Your task to perform on an android device: turn notification dots off Image 0: 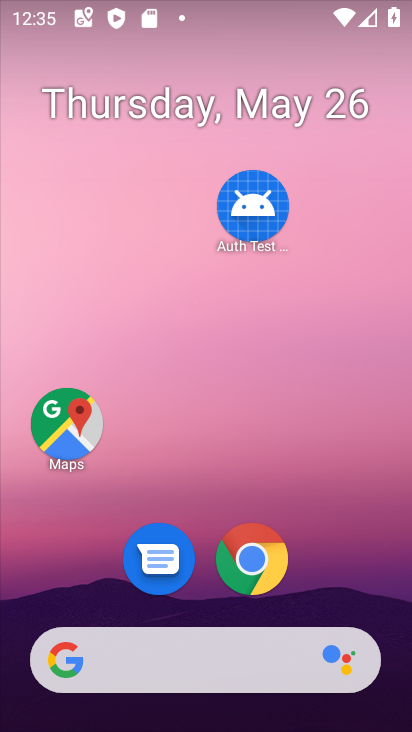
Step 0: drag from (339, 604) to (327, 153)
Your task to perform on an android device: turn notification dots off Image 1: 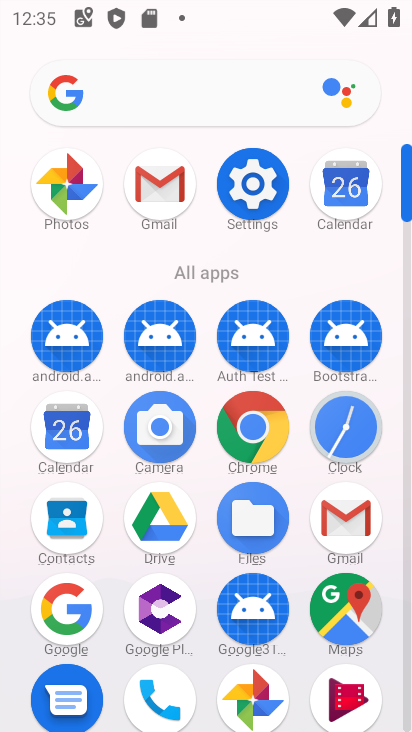
Step 1: click (234, 182)
Your task to perform on an android device: turn notification dots off Image 2: 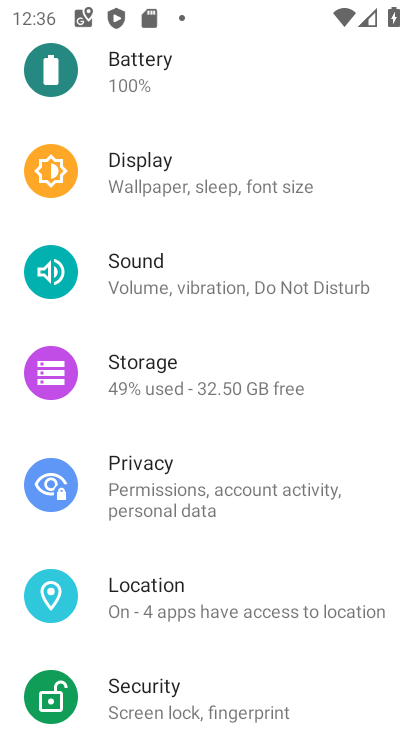
Step 2: drag from (211, 628) to (186, 664)
Your task to perform on an android device: turn notification dots off Image 3: 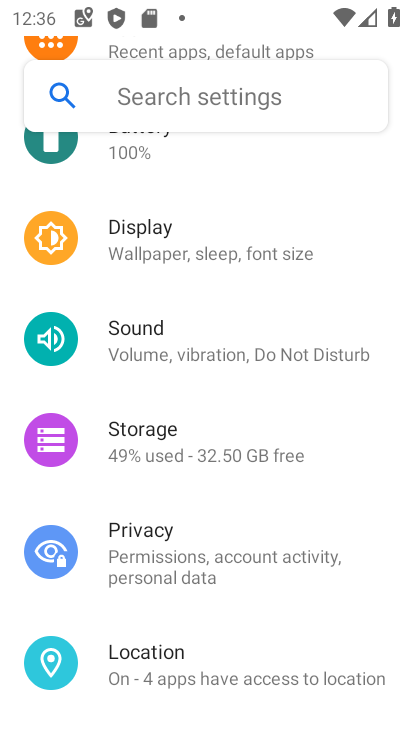
Step 3: drag from (179, 338) to (91, 728)
Your task to perform on an android device: turn notification dots off Image 4: 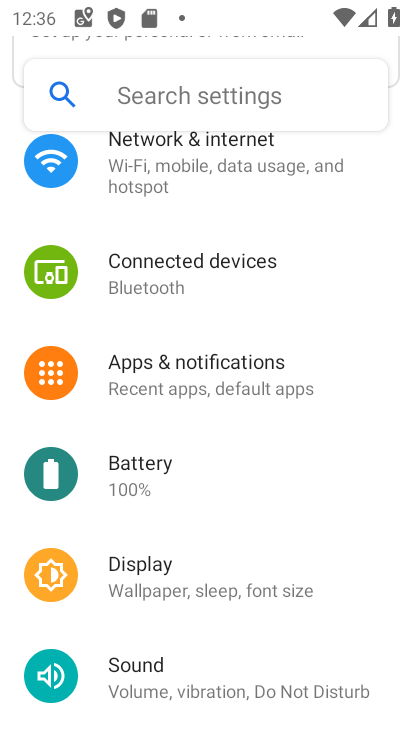
Step 4: click (180, 376)
Your task to perform on an android device: turn notification dots off Image 5: 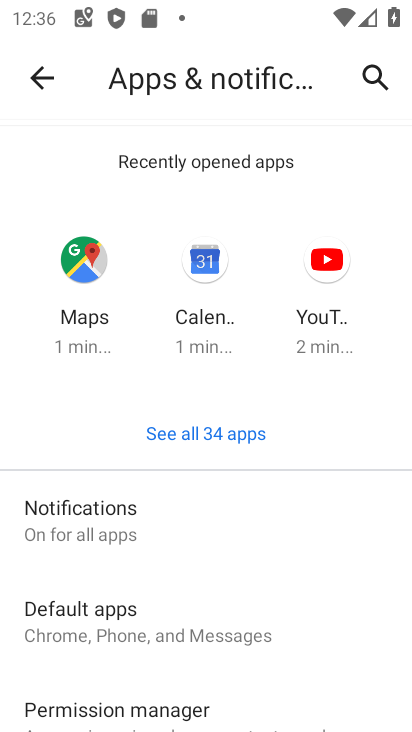
Step 5: click (181, 505)
Your task to perform on an android device: turn notification dots off Image 6: 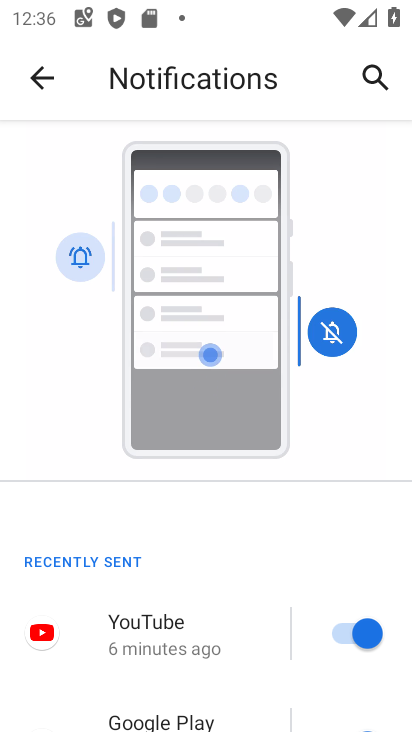
Step 6: drag from (199, 627) to (213, 157)
Your task to perform on an android device: turn notification dots off Image 7: 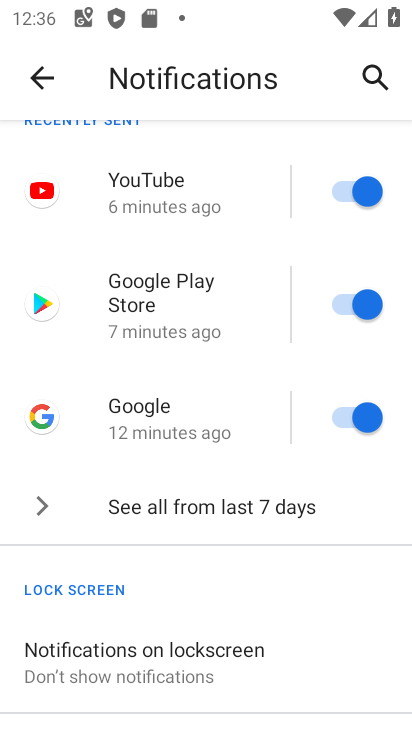
Step 7: click (227, 658)
Your task to perform on an android device: turn notification dots off Image 8: 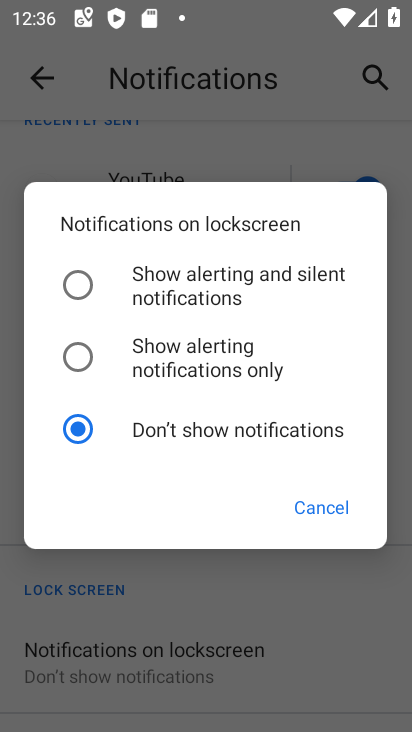
Step 8: drag from (227, 658) to (282, 197)
Your task to perform on an android device: turn notification dots off Image 9: 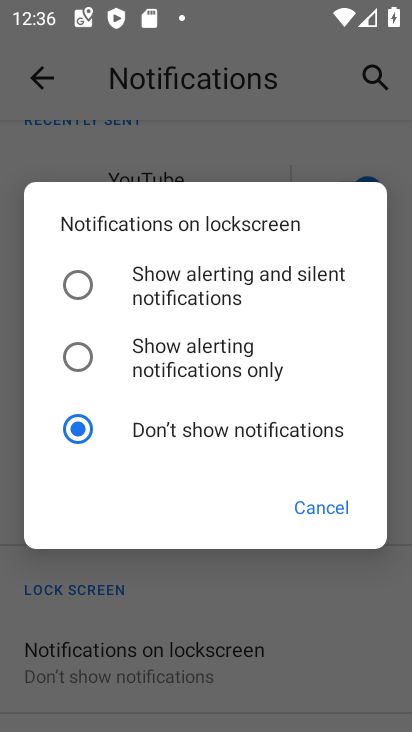
Step 9: click (324, 508)
Your task to perform on an android device: turn notification dots off Image 10: 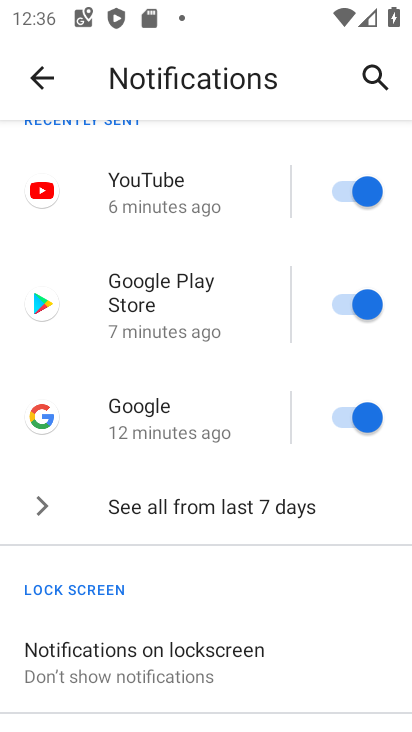
Step 10: drag from (243, 616) to (233, 235)
Your task to perform on an android device: turn notification dots off Image 11: 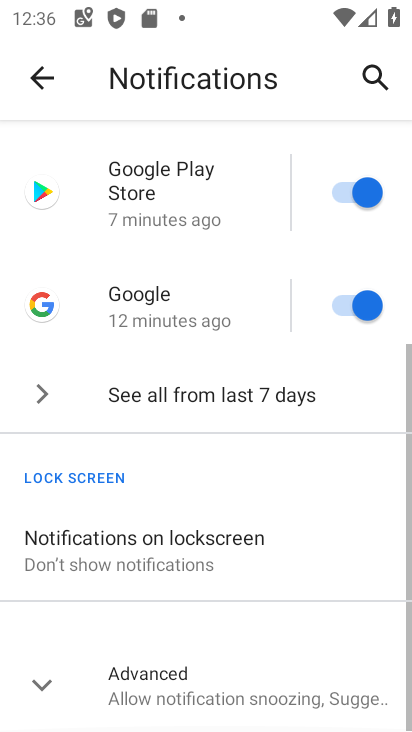
Step 11: click (209, 664)
Your task to perform on an android device: turn notification dots off Image 12: 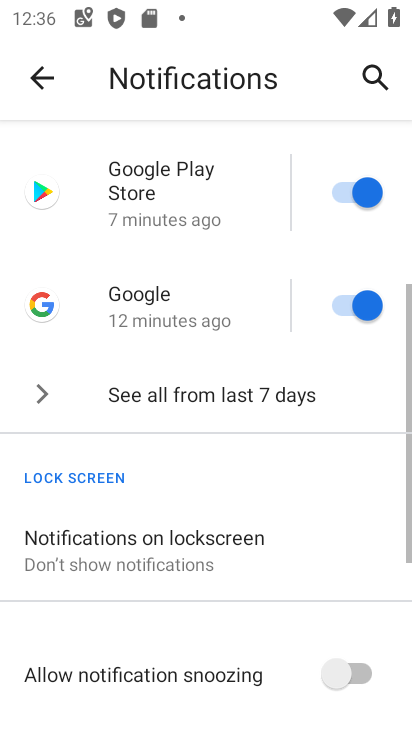
Step 12: drag from (223, 661) to (233, 297)
Your task to perform on an android device: turn notification dots off Image 13: 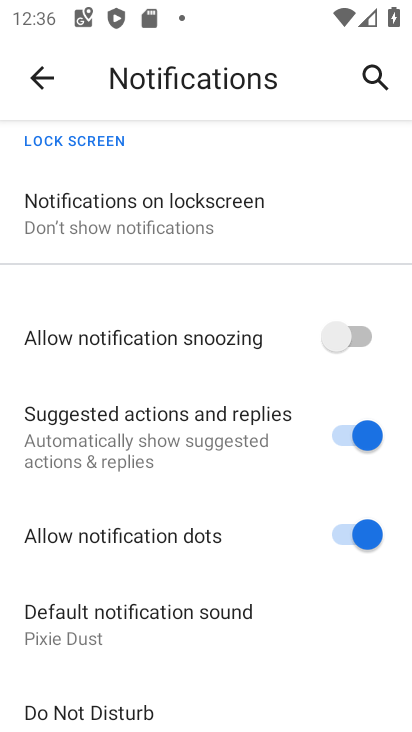
Step 13: click (354, 532)
Your task to perform on an android device: turn notification dots off Image 14: 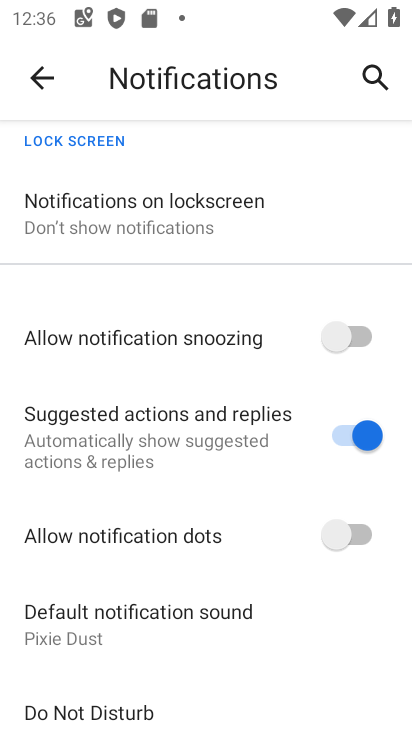
Step 14: task complete